Your task to perform on an android device: empty trash in the gmail app Image 0: 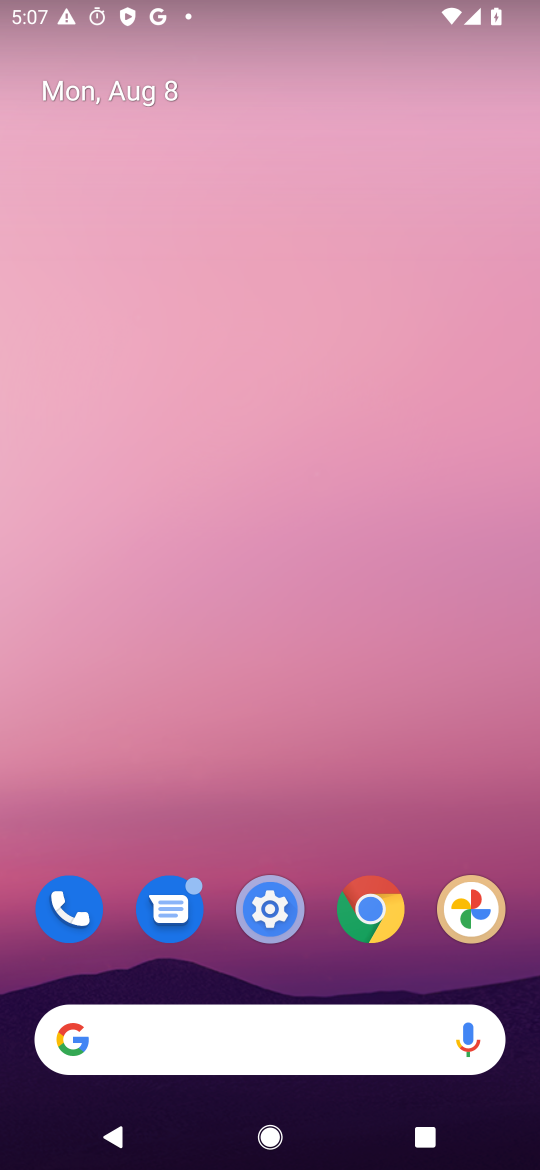
Step 0: drag from (234, 1067) to (415, 319)
Your task to perform on an android device: empty trash in the gmail app Image 1: 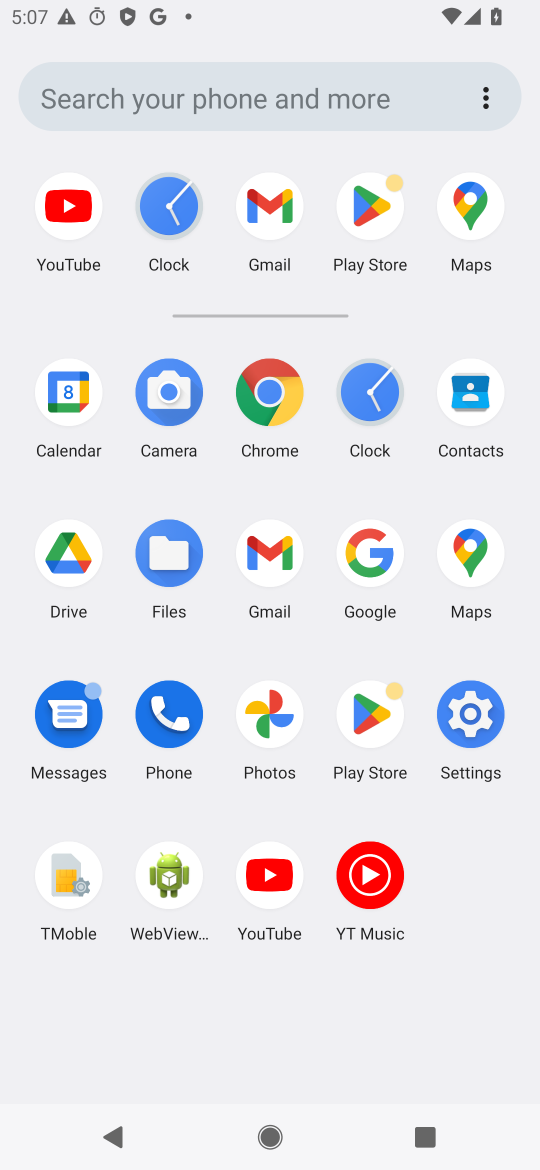
Step 1: click (269, 201)
Your task to perform on an android device: empty trash in the gmail app Image 2: 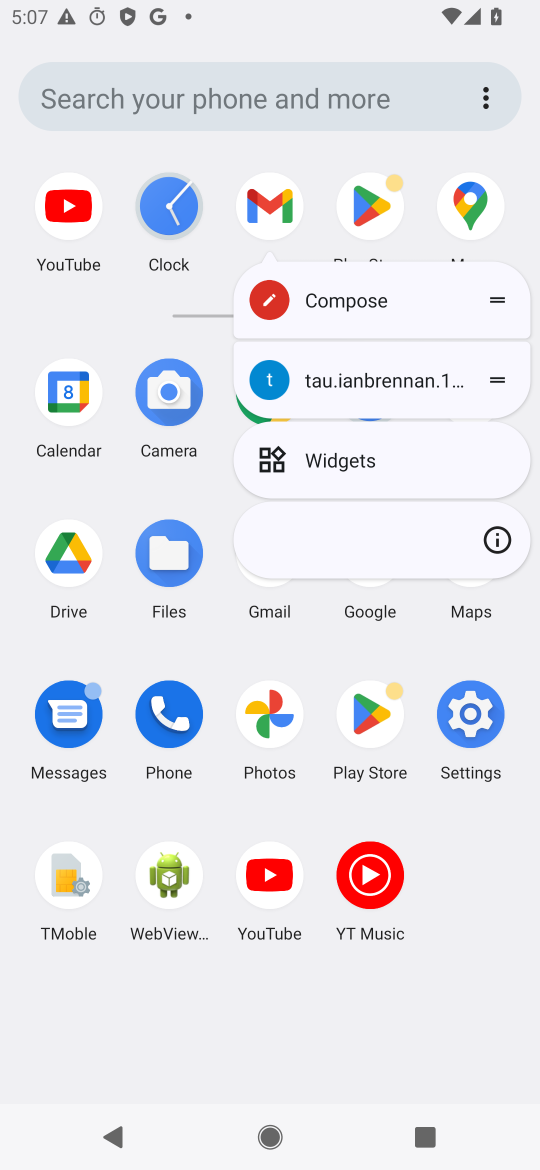
Step 2: click (260, 212)
Your task to perform on an android device: empty trash in the gmail app Image 3: 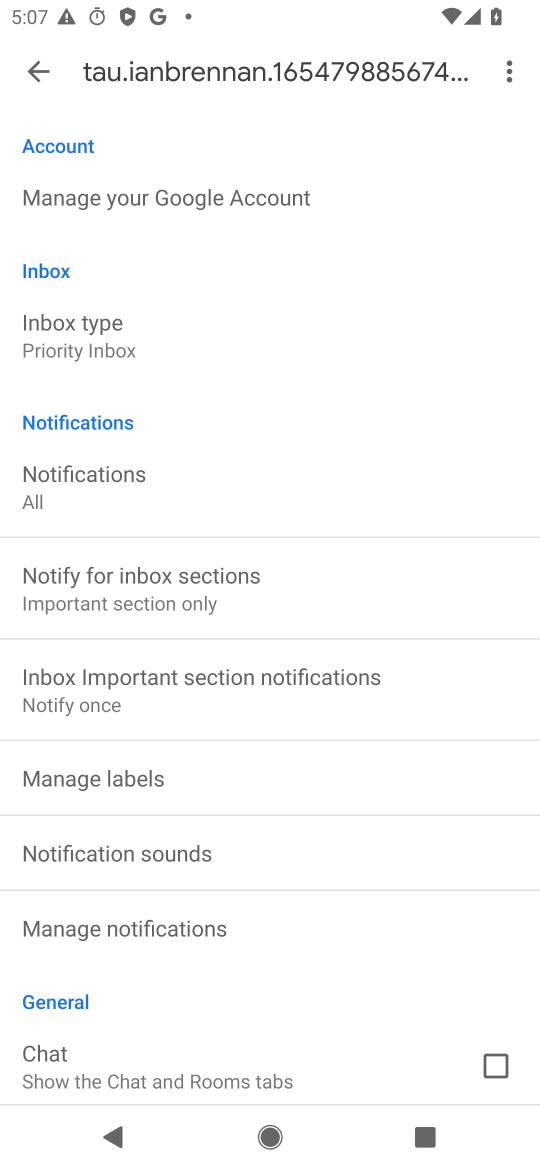
Step 3: click (46, 71)
Your task to perform on an android device: empty trash in the gmail app Image 4: 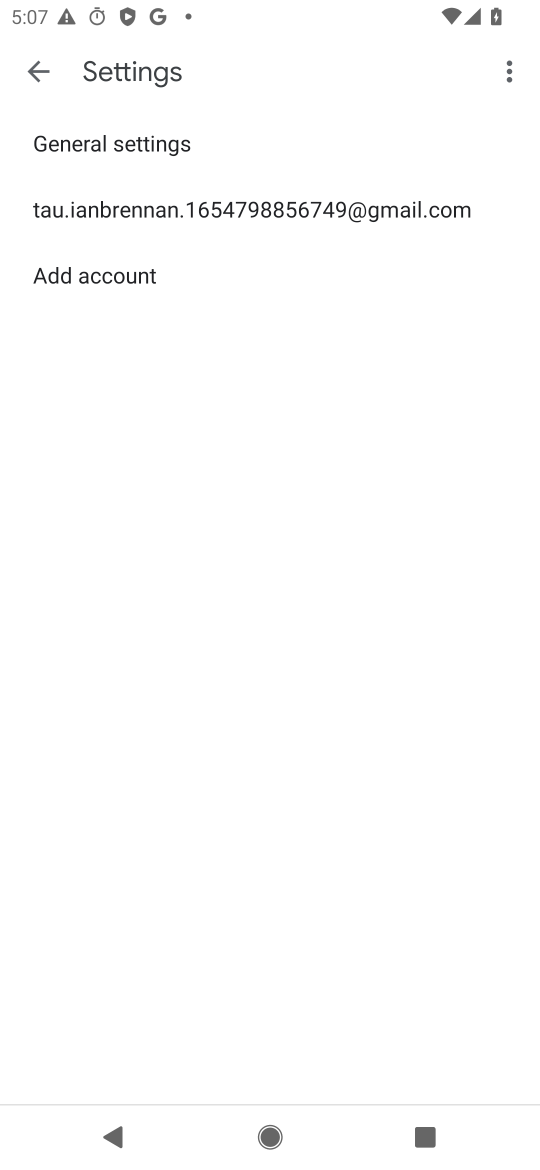
Step 4: click (46, 71)
Your task to perform on an android device: empty trash in the gmail app Image 5: 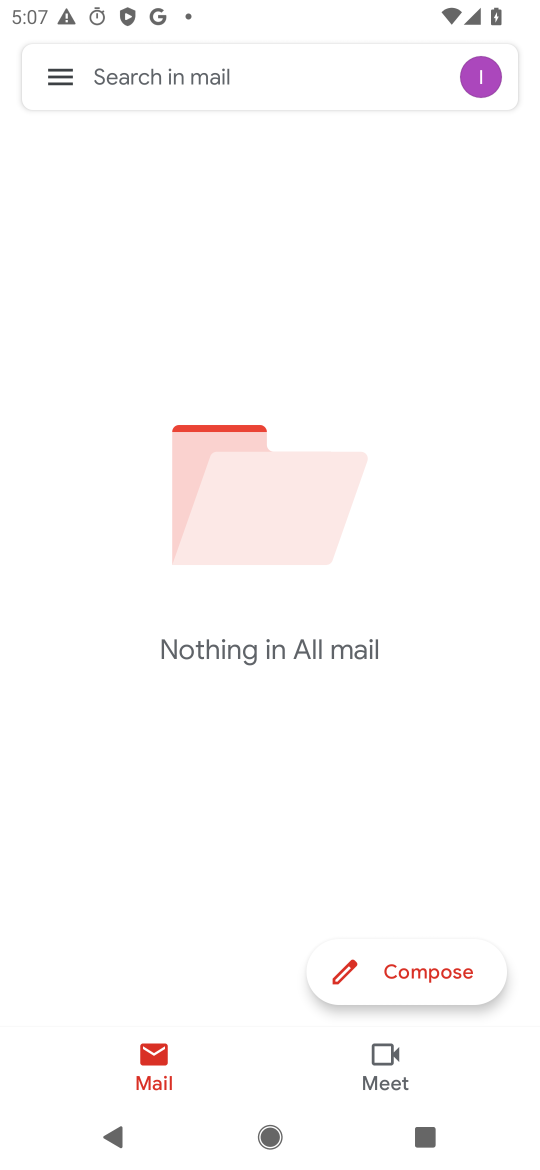
Step 5: click (46, 71)
Your task to perform on an android device: empty trash in the gmail app Image 6: 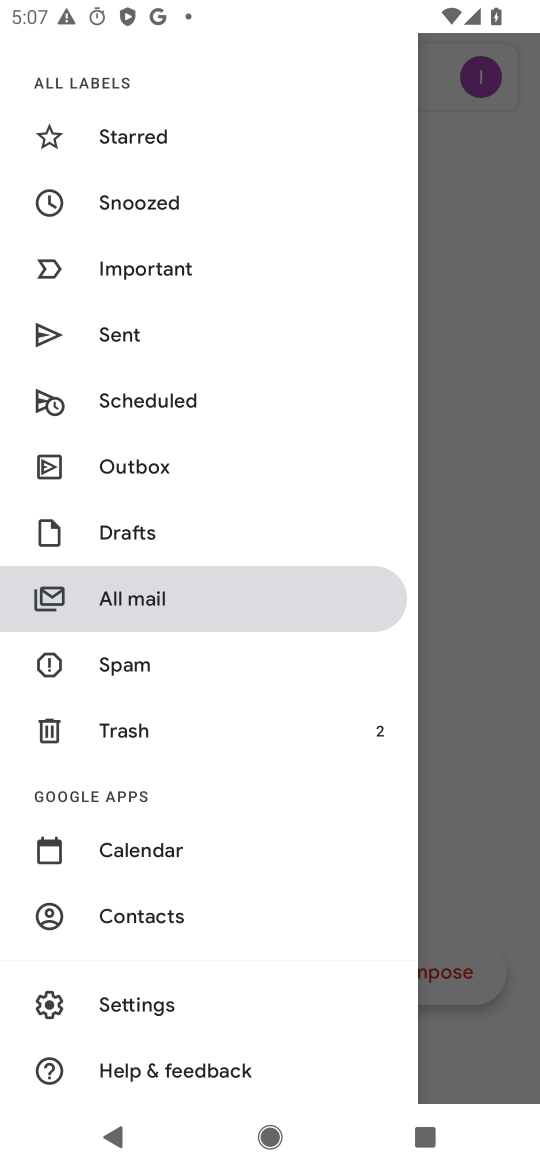
Step 6: click (128, 735)
Your task to perform on an android device: empty trash in the gmail app Image 7: 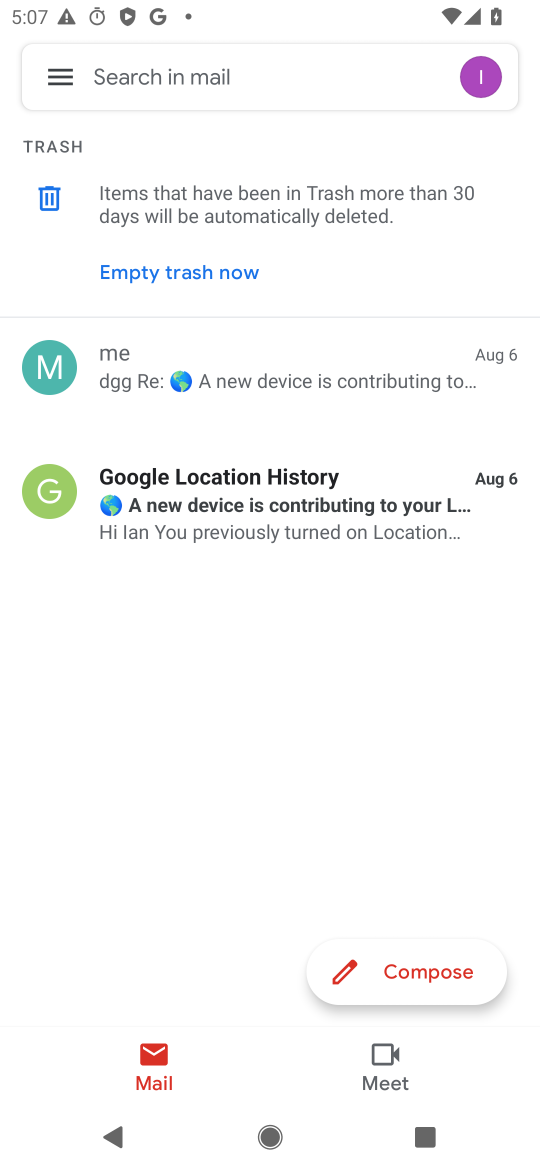
Step 7: click (193, 266)
Your task to perform on an android device: empty trash in the gmail app Image 8: 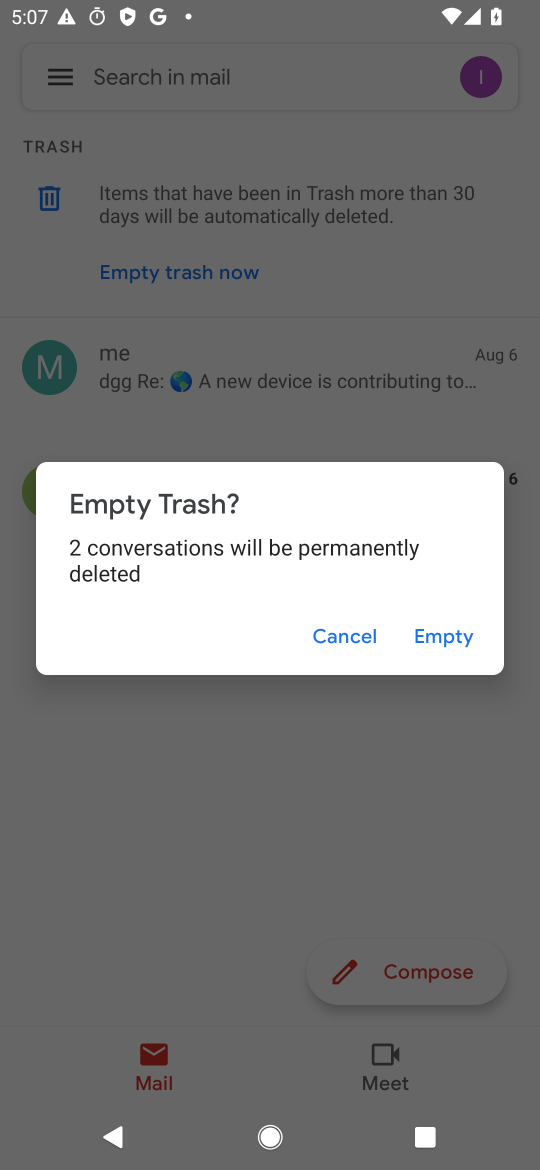
Step 8: click (440, 640)
Your task to perform on an android device: empty trash in the gmail app Image 9: 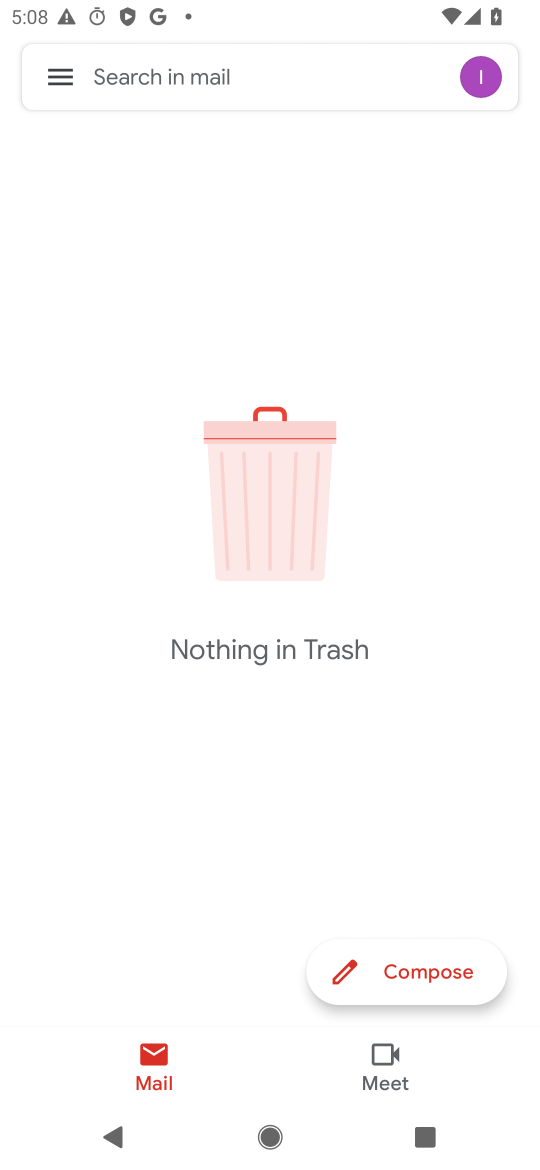
Step 9: task complete